Your task to perform on an android device: turn off location Image 0: 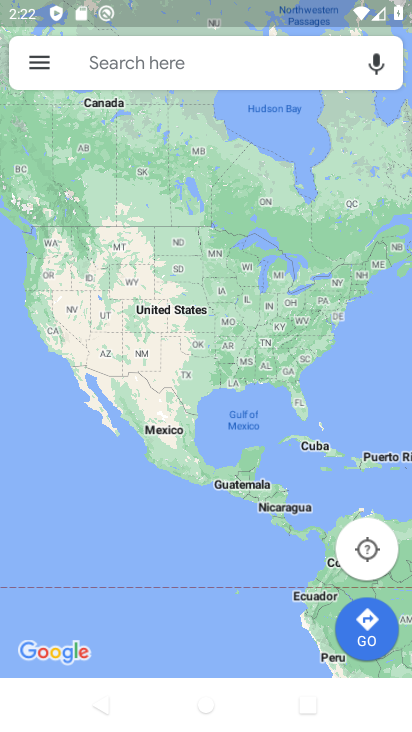
Step 0: press home button
Your task to perform on an android device: turn off location Image 1: 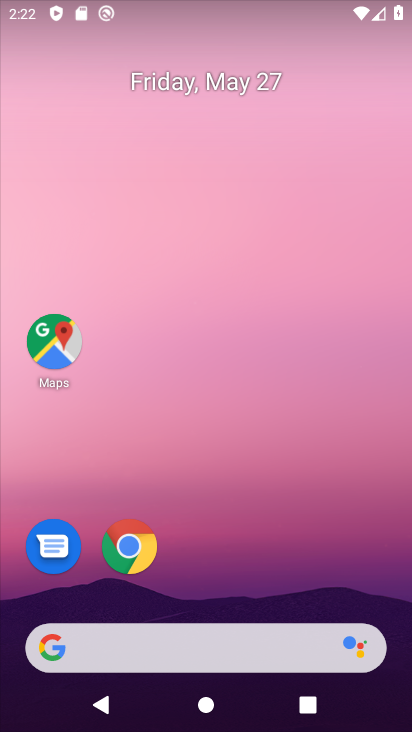
Step 1: drag from (180, 604) to (248, 124)
Your task to perform on an android device: turn off location Image 2: 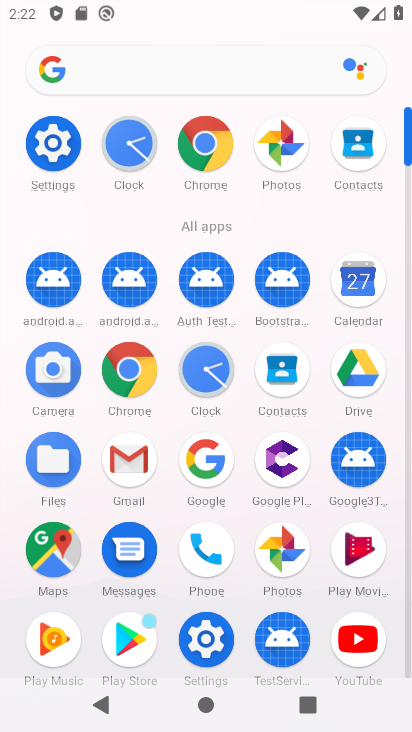
Step 2: click (207, 637)
Your task to perform on an android device: turn off location Image 3: 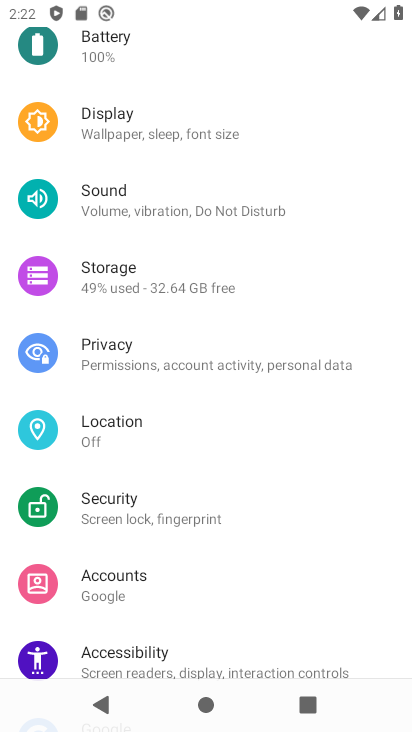
Step 3: click (165, 440)
Your task to perform on an android device: turn off location Image 4: 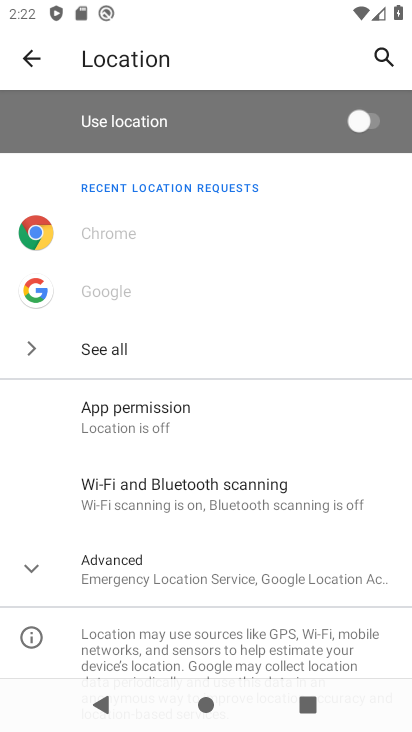
Step 4: task complete